Your task to perform on an android device: change timer sound Image 0: 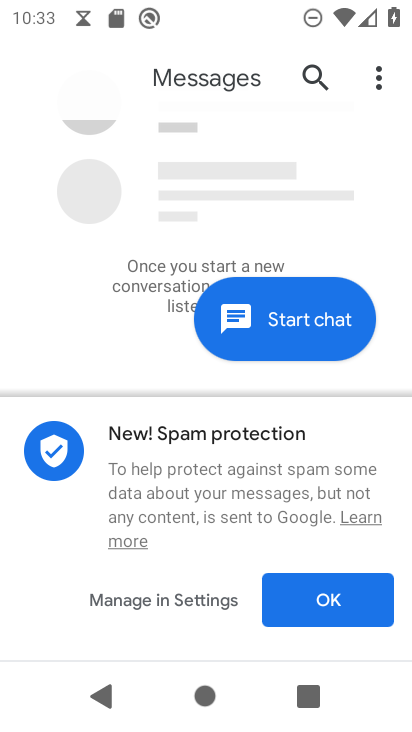
Step 0: press back button
Your task to perform on an android device: change timer sound Image 1: 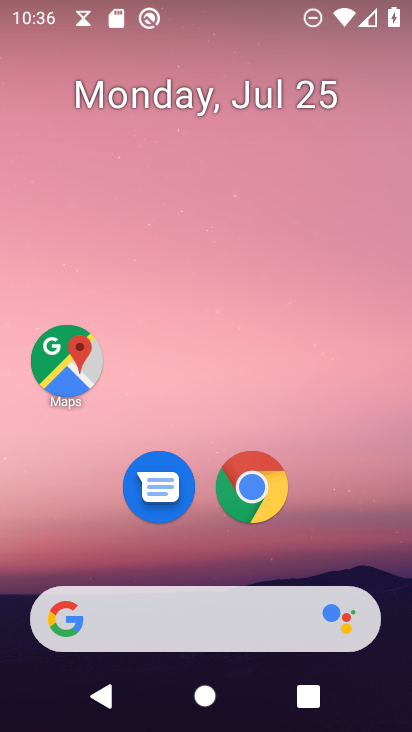
Step 1: drag from (231, 480) to (257, 20)
Your task to perform on an android device: change timer sound Image 2: 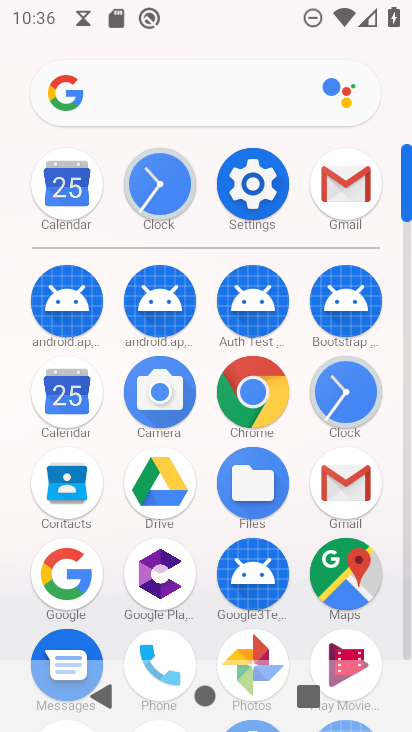
Step 2: click (163, 199)
Your task to perform on an android device: change timer sound Image 3: 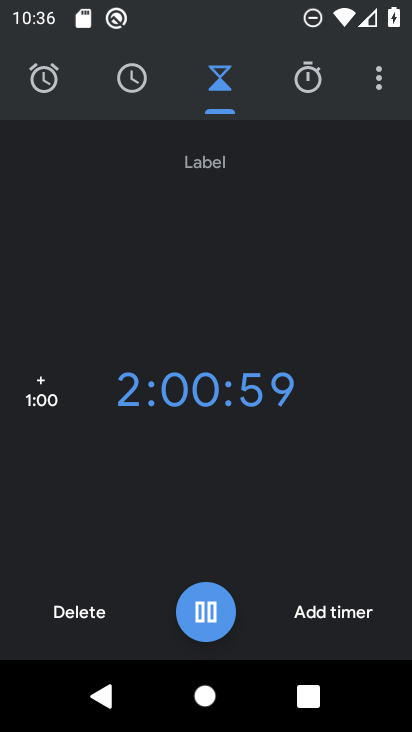
Step 3: click (376, 71)
Your task to perform on an android device: change timer sound Image 4: 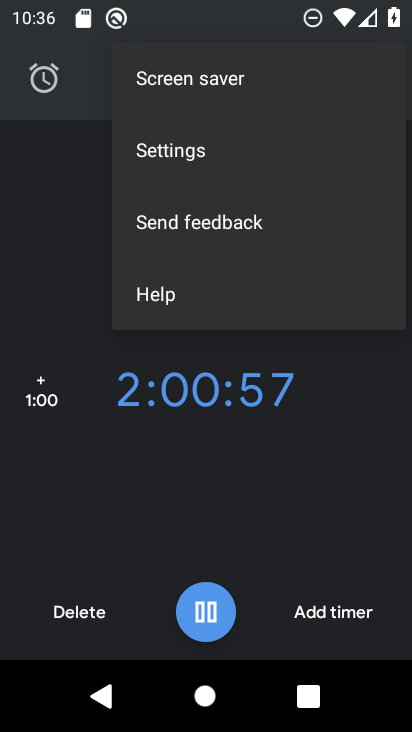
Step 4: click (197, 145)
Your task to perform on an android device: change timer sound Image 5: 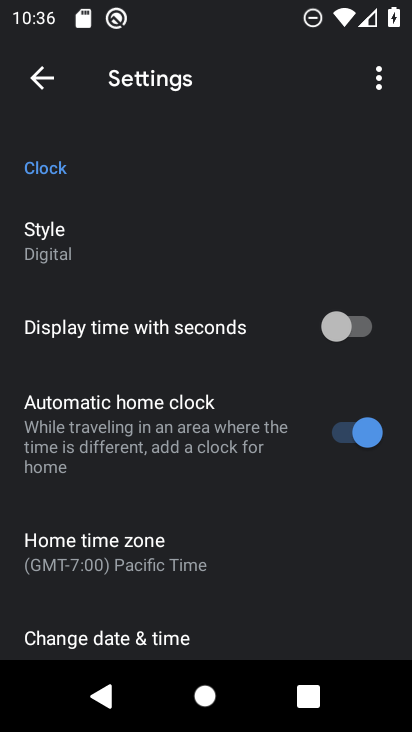
Step 5: drag from (116, 608) to (214, 197)
Your task to perform on an android device: change timer sound Image 6: 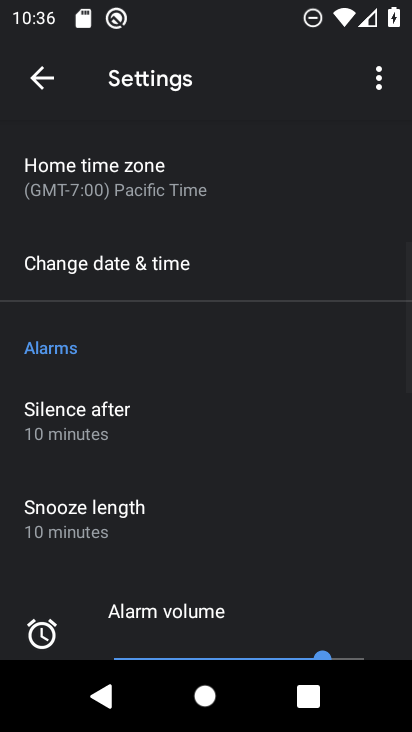
Step 6: drag from (165, 551) to (227, 85)
Your task to perform on an android device: change timer sound Image 7: 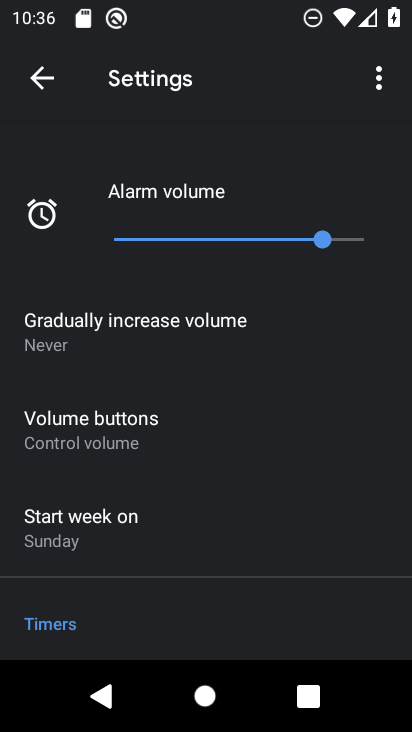
Step 7: drag from (117, 534) to (221, 26)
Your task to perform on an android device: change timer sound Image 8: 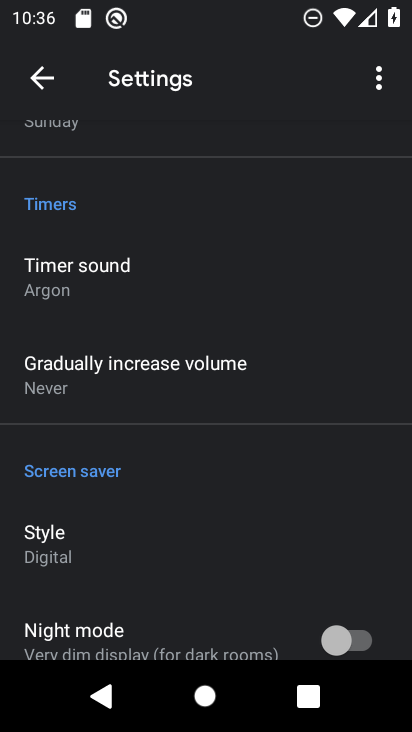
Step 8: click (122, 287)
Your task to perform on an android device: change timer sound Image 9: 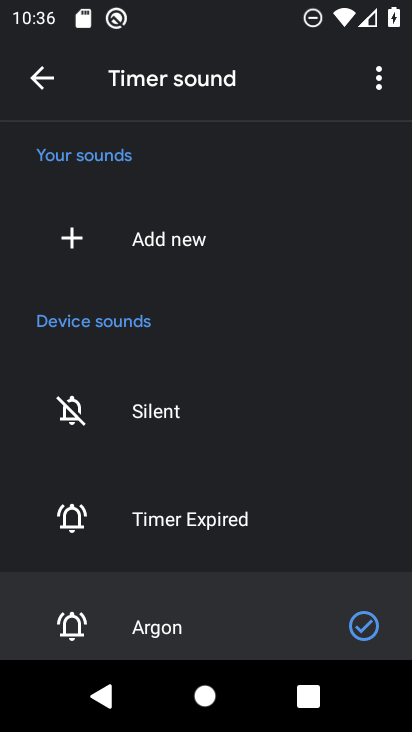
Step 9: click (178, 523)
Your task to perform on an android device: change timer sound Image 10: 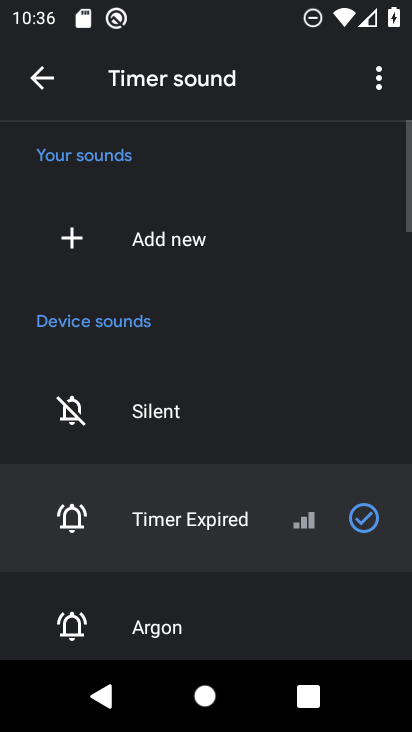
Step 10: task complete